Your task to perform on an android device: check data usage Image 0: 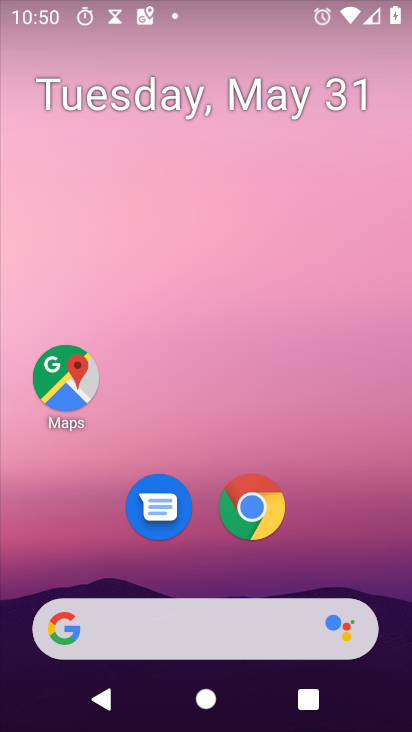
Step 0: drag from (45, 503) to (322, 69)
Your task to perform on an android device: check data usage Image 1: 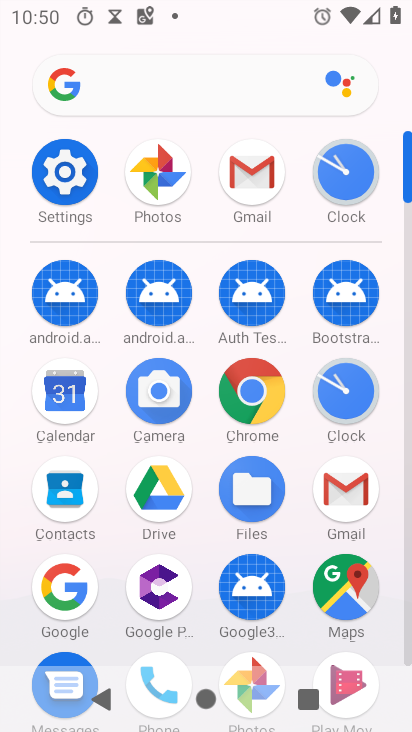
Step 1: click (85, 173)
Your task to perform on an android device: check data usage Image 2: 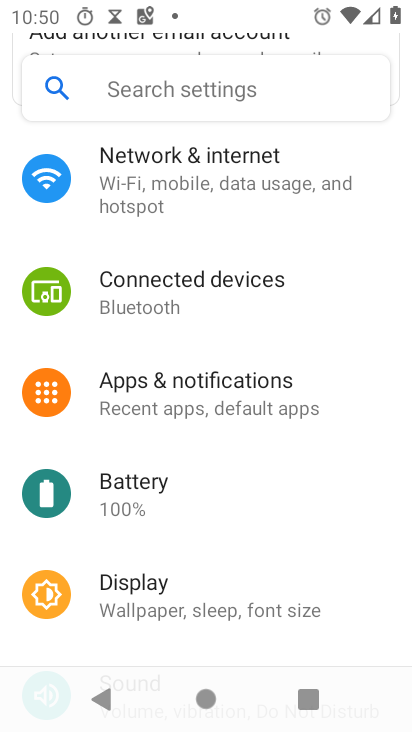
Step 2: click (336, 185)
Your task to perform on an android device: check data usage Image 3: 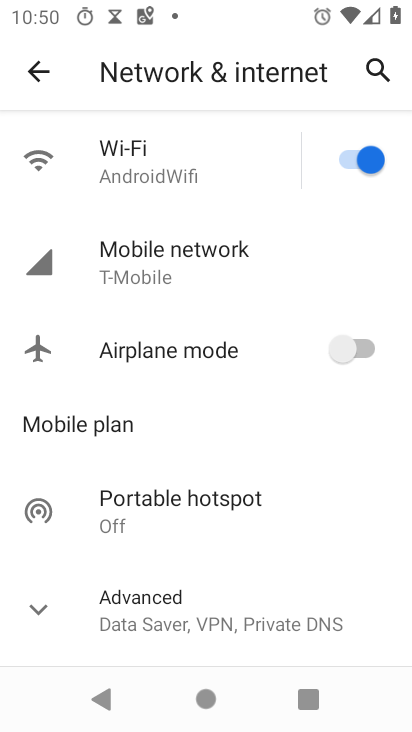
Step 3: click (167, 263)
Your task to perform on an android device: check data usage Image 4: 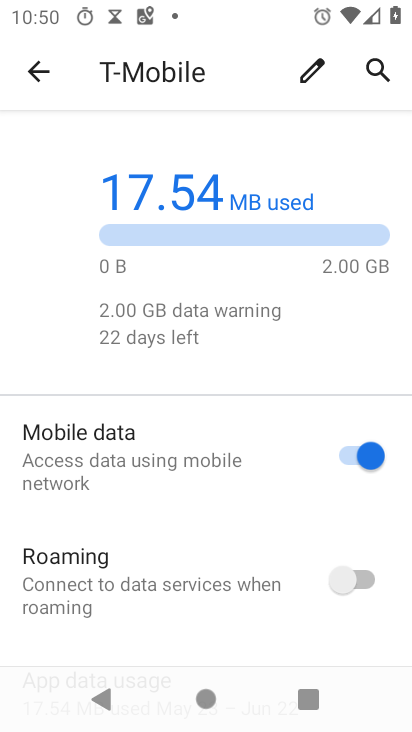
Step 4: task complete